Your task to perform on an android device: Show the shopping cart on costco.com. Image 0: 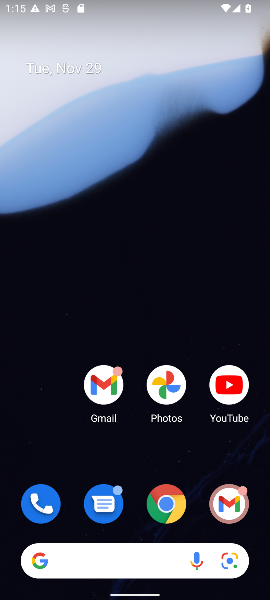
Step 0: click (171, 506)
Your task to perform on an android device: Show the shopping cart on costco.com. Image 1: 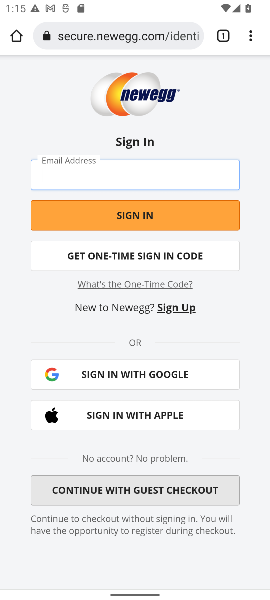
Step 1: click (99, 36)
Your task to perform on an android device: Show the shopping cart on costco.com. Image 2: 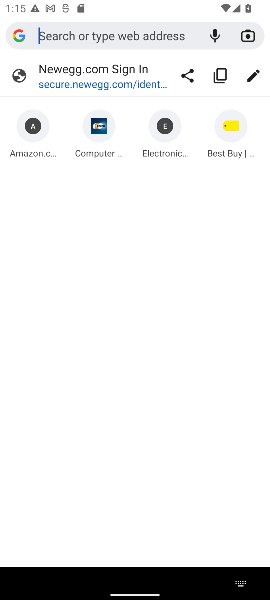
Step 2: type "costco.com"
Your task to perform on an android device: Show the shopping cart on costco.com. Image 3: 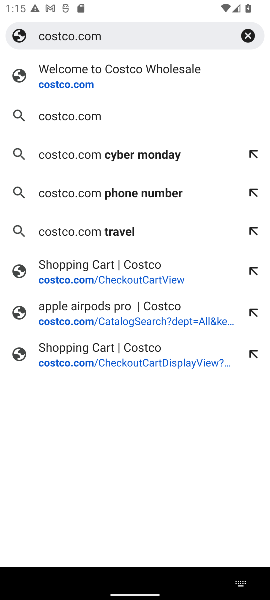
Step 3: click (70, 86)
Your task to perform on an android device: Show the shopping cart on costco.com. Image 4: 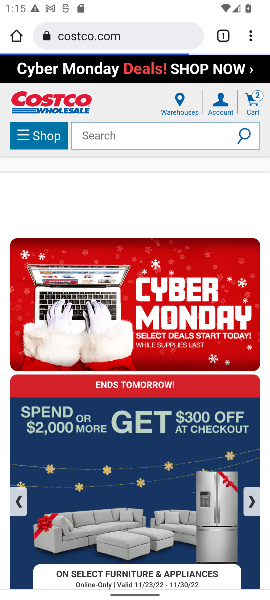
Step 4: click (252, 108)
Your task to perform on an android device: Show the shopping cart on costco.com. Image 5: 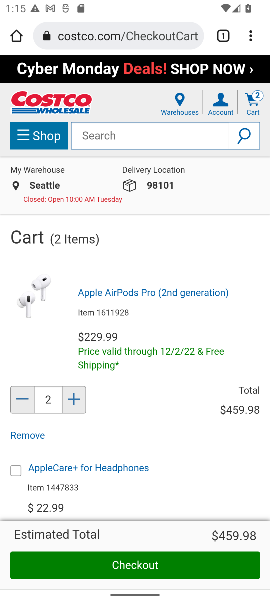
Step 5: task complete